Your task to perform on an android device: turn off priority inbox in the gmail app Image 0: 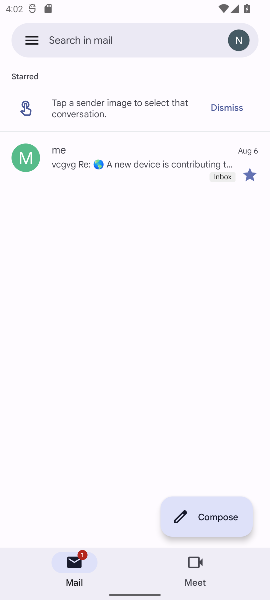
Step 0: task complete